Your task to perform on an android device: allow cookies in the chrome app Image 0: 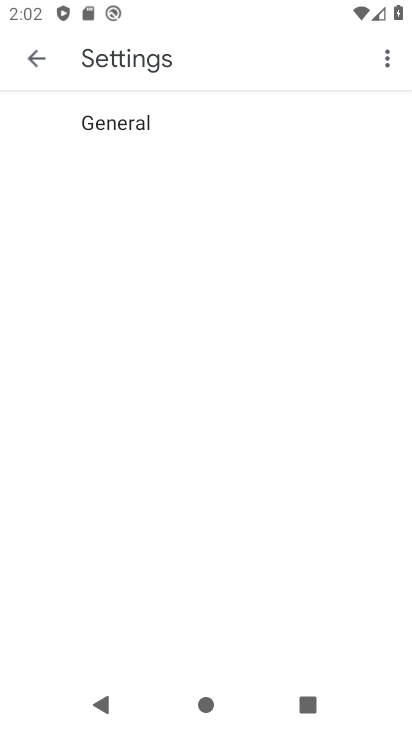
Step 0: press home button
Your task to perform on an android device: allow cookies in the chrome app Image 1: 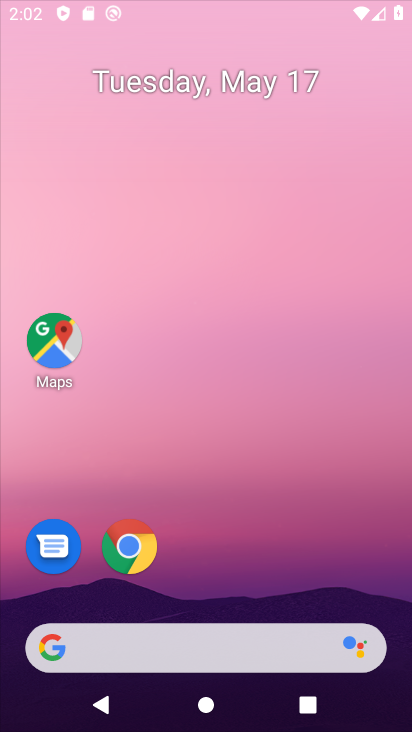
Step 1: drag from (218, 594) to (355, 162)
Your task to perform on an android device: allow cookies in the chrome app Image 2: 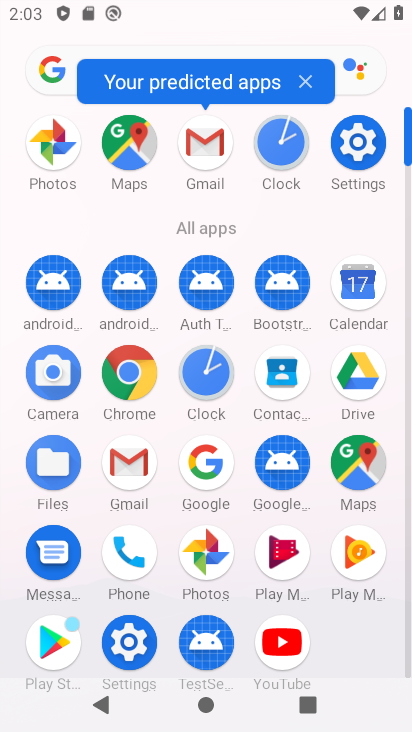
Step 2: click (140, 390)
Your task to perform on an android device: allow cookies in the chrome app Image 3: 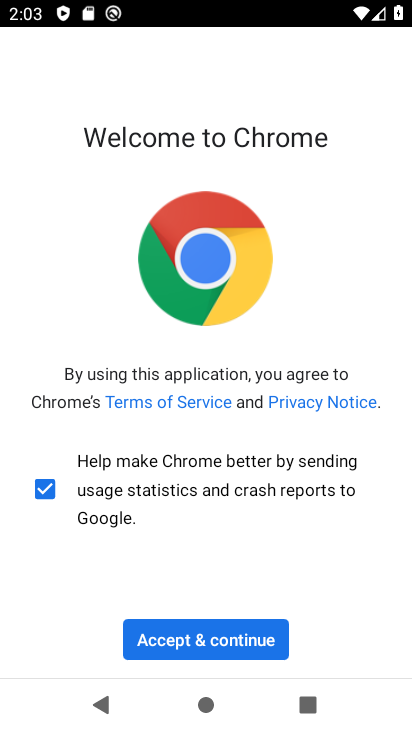
Step 3: click (255, 652)
Your task to perform on an android device: allow cookies in the chrome app Image 4: 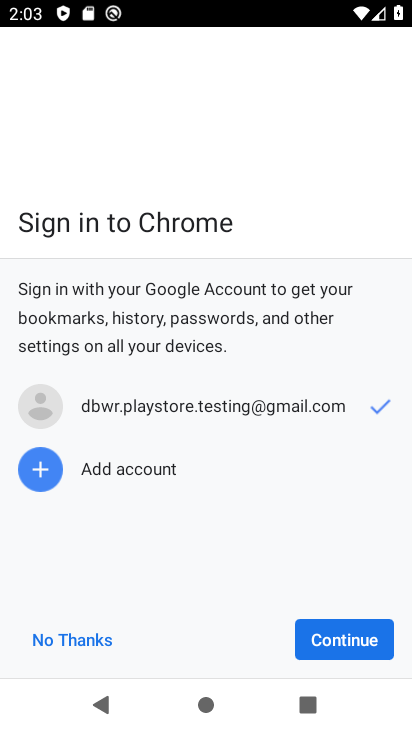
Step 4: click (319, 643)
Your task to perform on an android device: allow cookies in the chrome app Image 5: 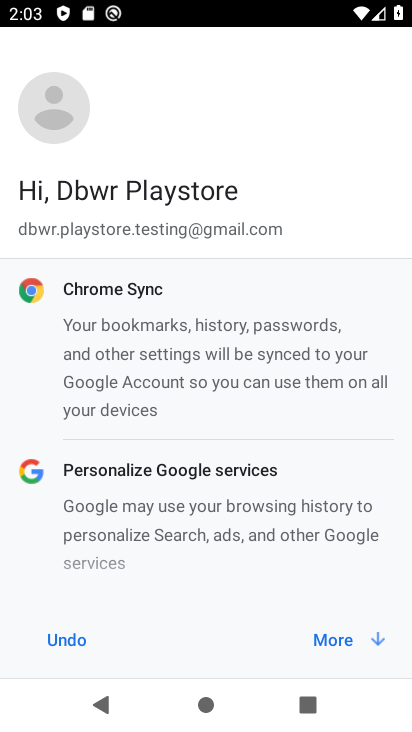
Step 5: click (341, 645)
Your task to perform on an android device: allow cookies in the chrome app Image 6: 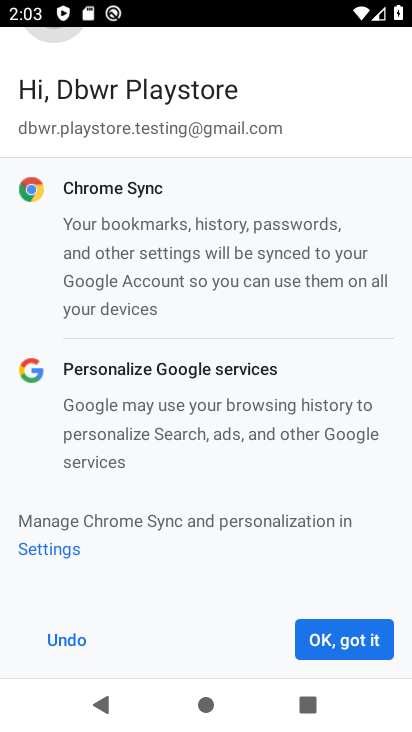
Step 6: click (329, 643)
Your task to perform on an android device: allow cookies in the chrome app Image 7: 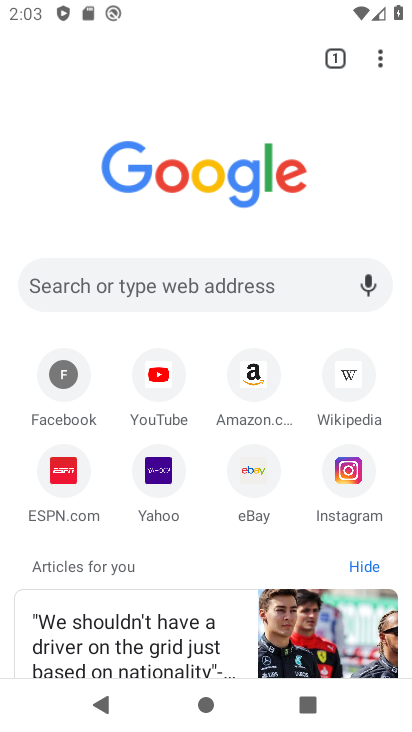
Step 7: click (386, 62)
Your task to perform on an android device: allow cookies in the chrome app Image 8: 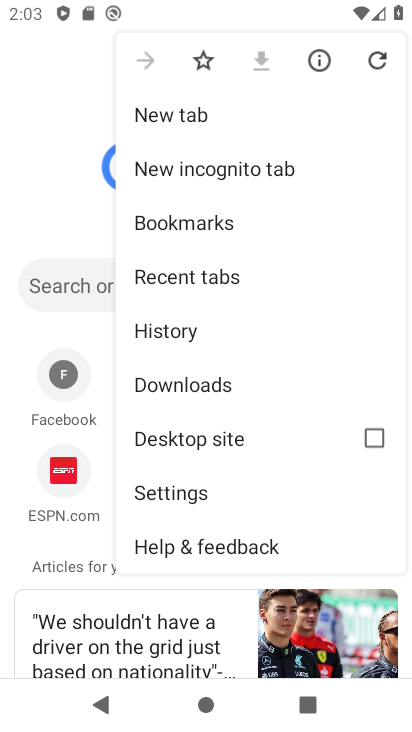
Step 8: click (184, 489)
Your task to perform on an android device: allow cookies in the chrome app Image 9: 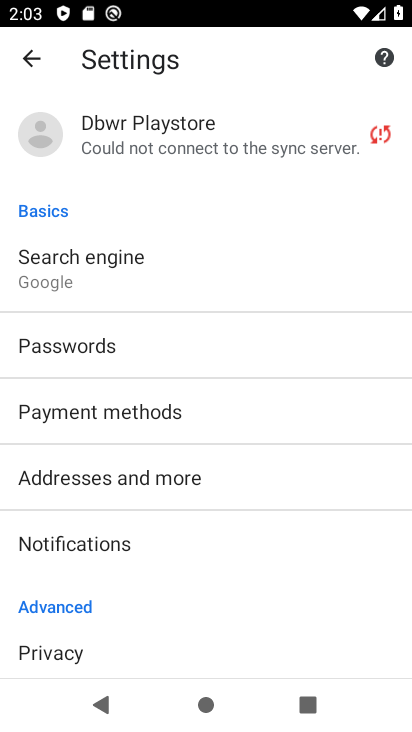
Step 9: drag from (177, 572) to (170, 309)
Your task to perform on an android device: allow cookies in the chrome app Image 10: 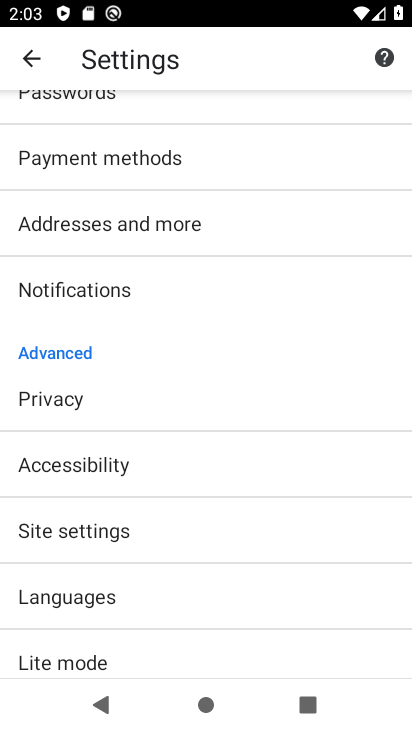
Step 10: drag from (150, 523) to (152, 456)
Your task to perform on an android device: allow cookies in the chrome app Image 11: 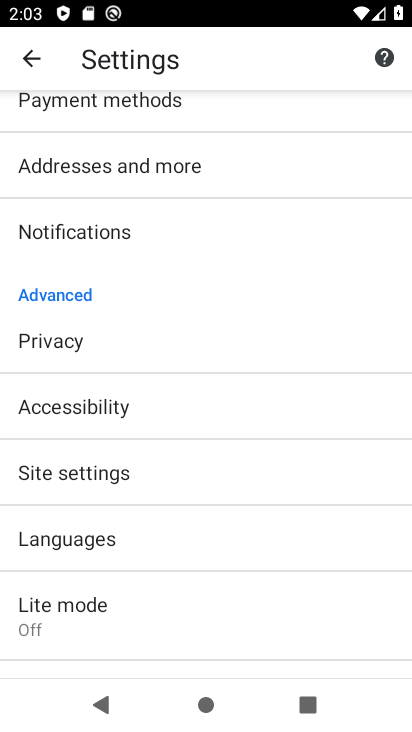
Step 11: click (144, 480)
Your task to perform on an android device: allow cookies in the chrome app Image 12: 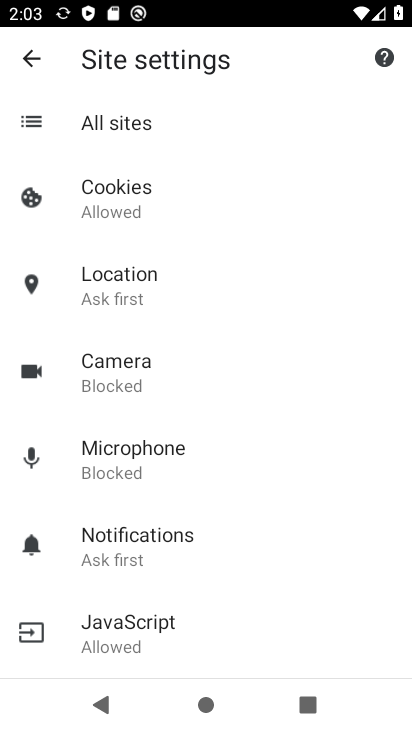
Step 12: click (137, 190)
Your task to perform on an android device: allow cookies in the chrome app Image 13: 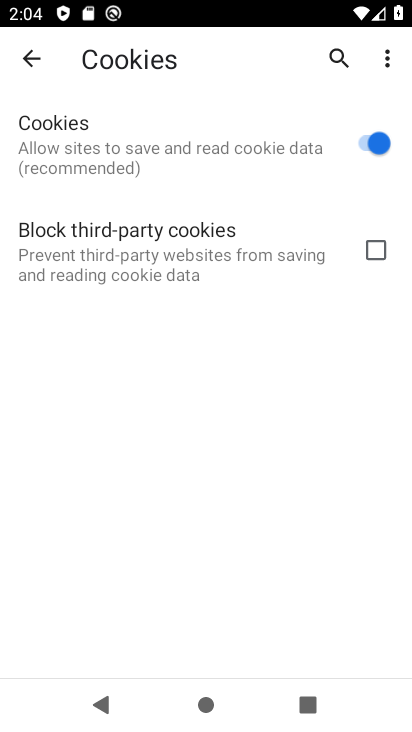
Step 13: task complete